Your task to perform on an android device: turn off airplane mode Image 0: 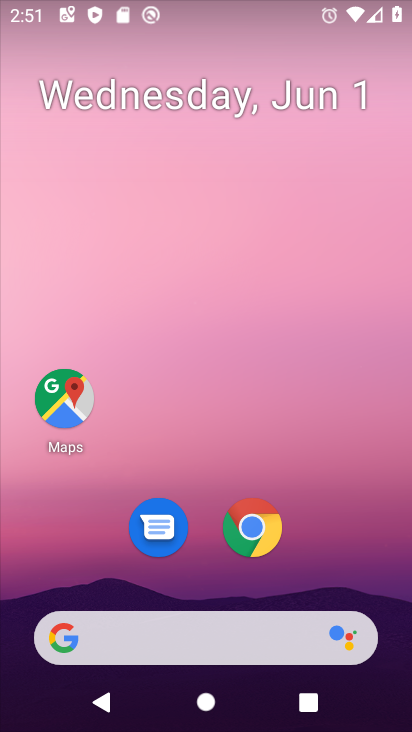
Step 0: drag from (321, 564) to (286, 67)
Your task to perform on an android device: turn off airplane mode Image 1: 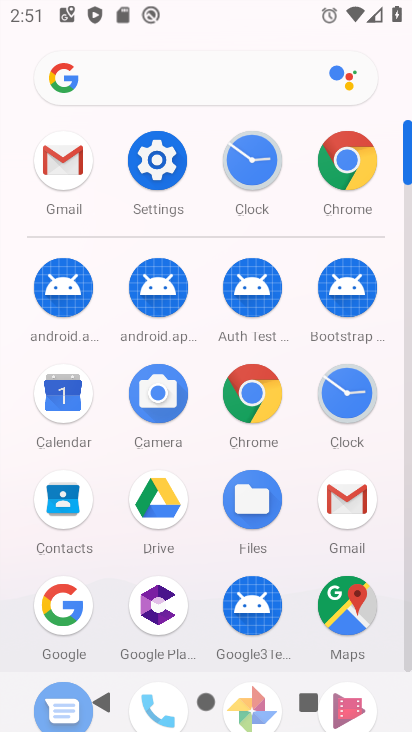
Step 1: click (161, 158)
Your task to perform on an android device: turn off airplane mode Image 2: 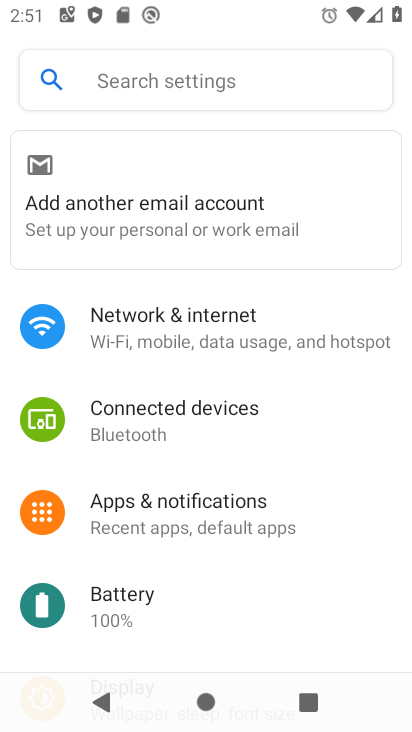
Step 2: click (219, 320)
Your task to perform on an android device: turn off airplane mode Image 3: 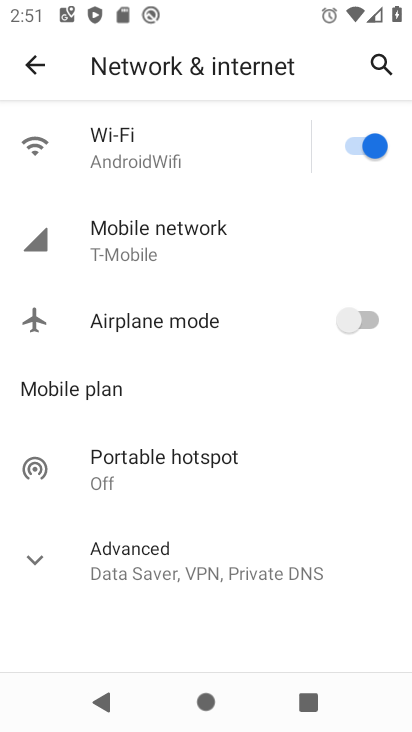
Step 3: task complete